Your task to perform on an android device: What's the weather? Image 0: 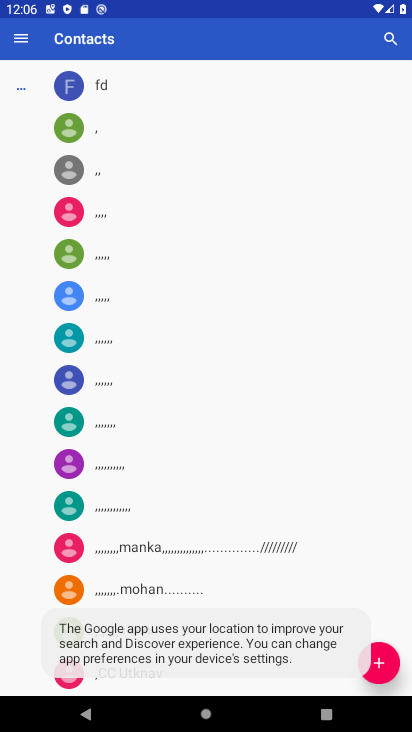
Step 0: press home button
Your task to perform on an android device: What's the weather? Image 1: 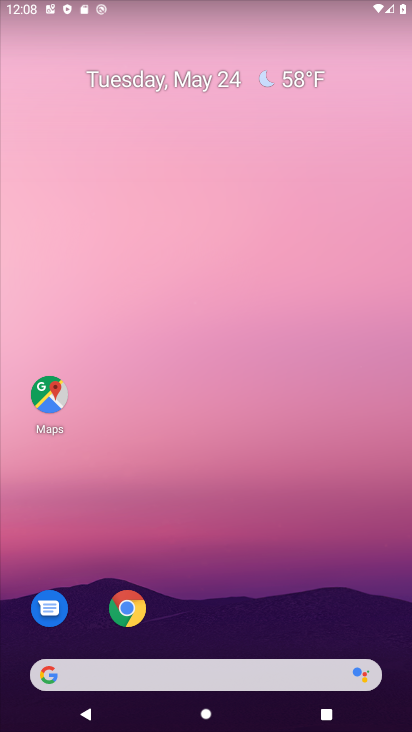
Step 1: drag from (229, 703) to (319, 64)
Your task to perform on an android device: What's the weather? Image 2: 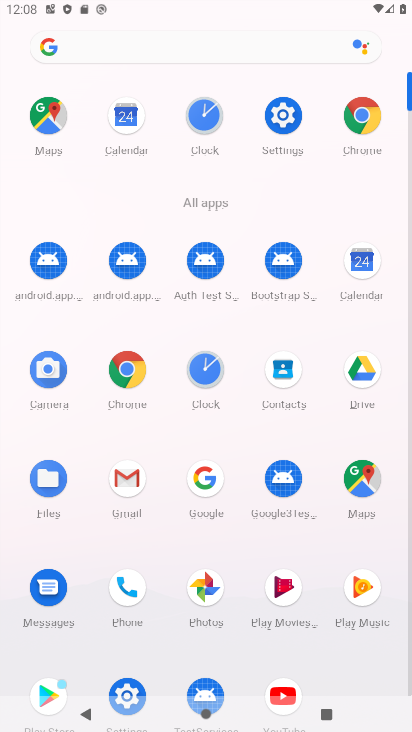
Step 2: click (155, 46)
Your task to perform on an android device: What's the weather? Image 3: 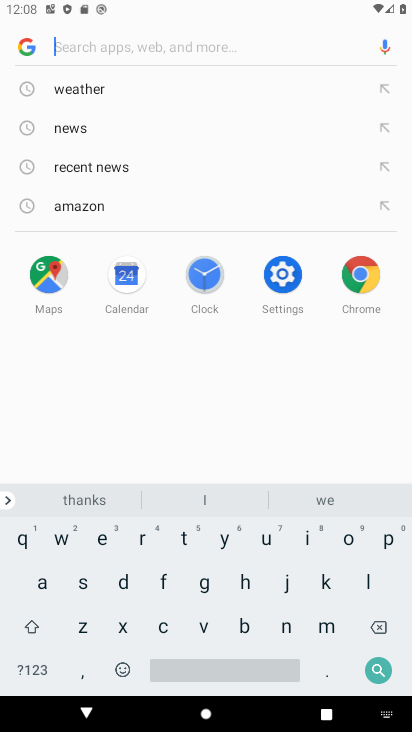
Step 3: click (124, 85)
Your task to perform on an android device: What's the weather? Image 4: 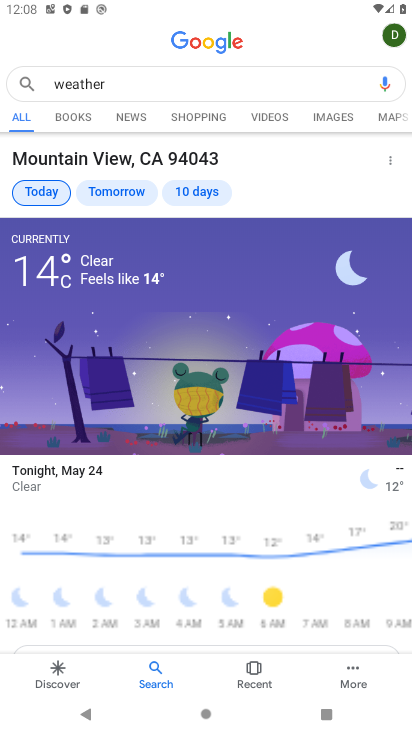
Step 4: task complete